Your task to perform on an android device: change notifications settings Image 0: 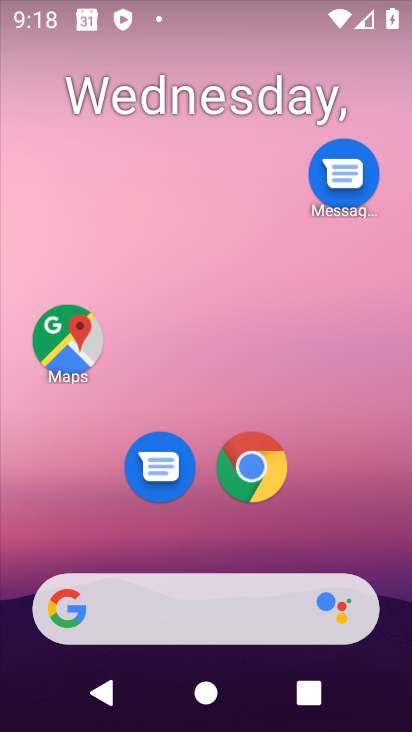
Step 0: drag from (334, 583) to (82, 6)
Your task to perform on an android device: change notifications settings Image 1: 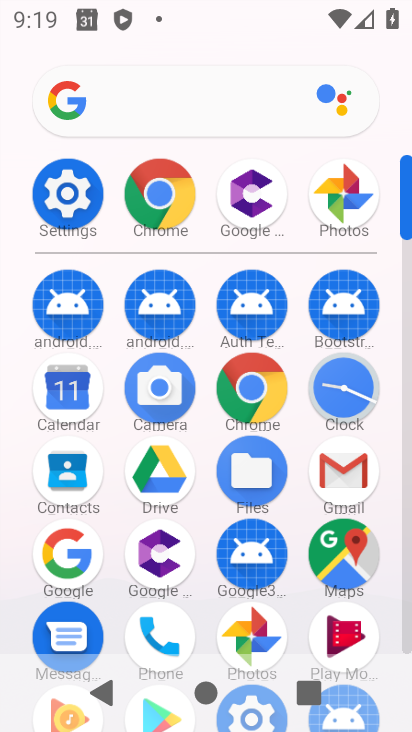
Step 1: click (53, 198)
Your task to perform on an android device: change notifications settings Image 2: 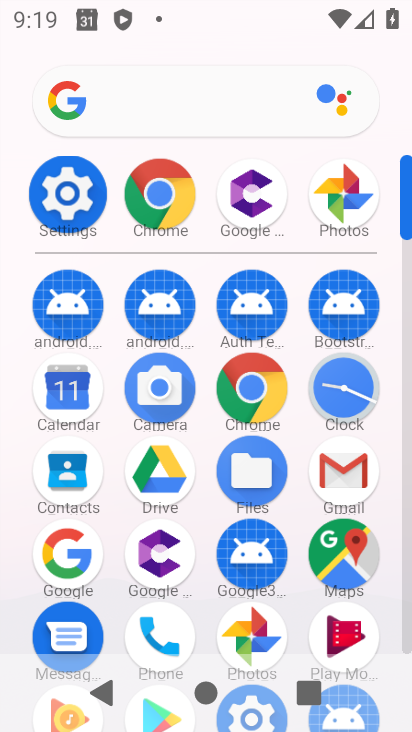
Step 2: click (60, 194)
Your task to perform on an android device: change notifications settings Image 3: 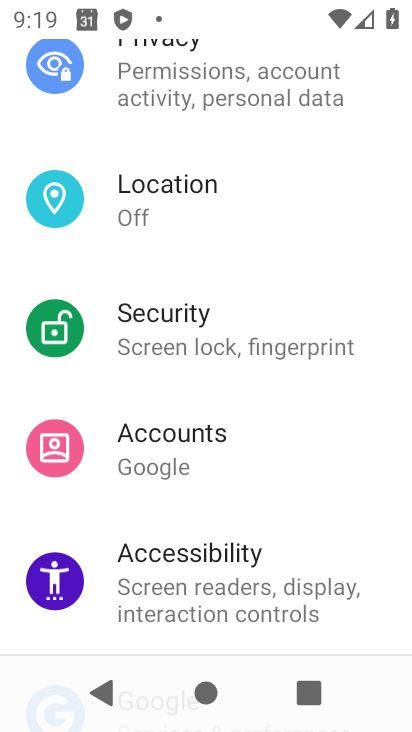
Step 3: click (63, 196)
Your task to perform on an android device: change notifications settings Image 4: 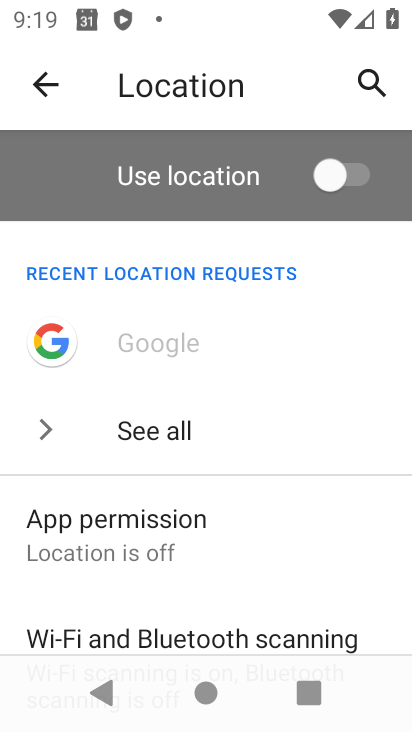
Step 4: click (43, 85)
Your task to perform on an android device: change notifications settings Image 5: 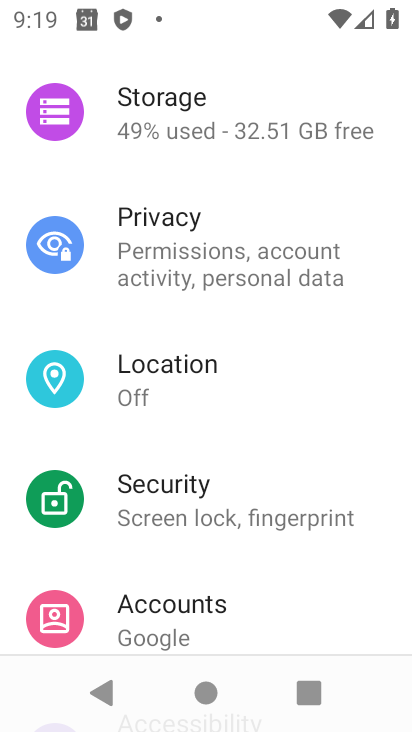
Step 5: drag from (134, 165) to (225, 449)
Your task to perform on an android device: change notifications settings Image 6: 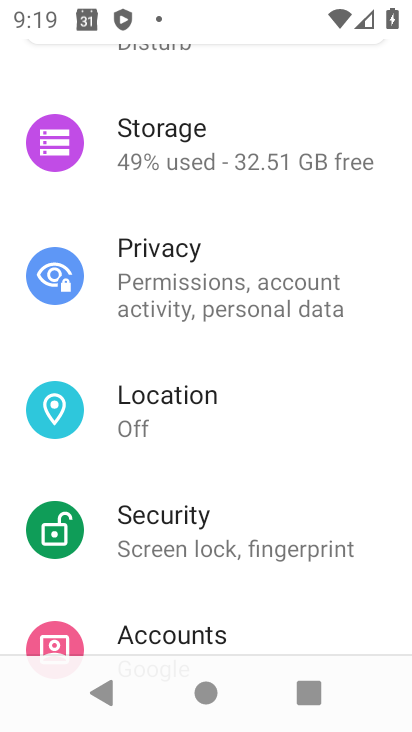
Step 6: click (253, 477)
Your task to perform on an android device: change notifications settings Image 7: 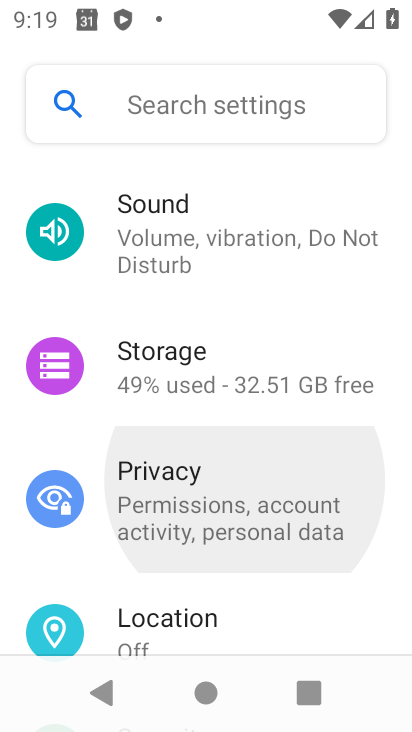
Step 7: click (238, 408)
Your task to perform on an android device: change notifications settings Image 8: 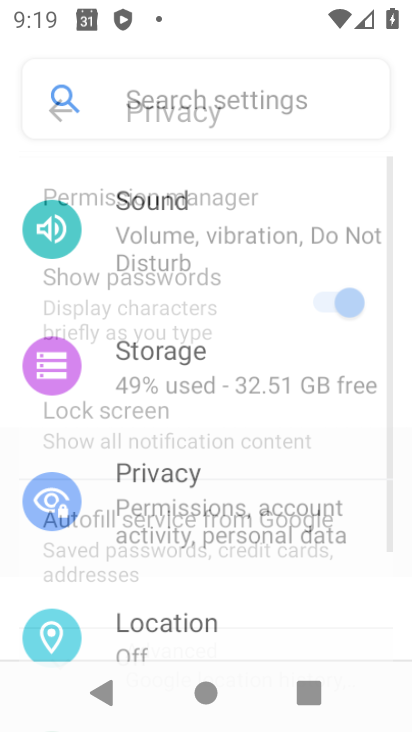
Step 8: drag from (180, 398) to (214, 518)
Your task to perform on an android device: change notifications settings Image 9: 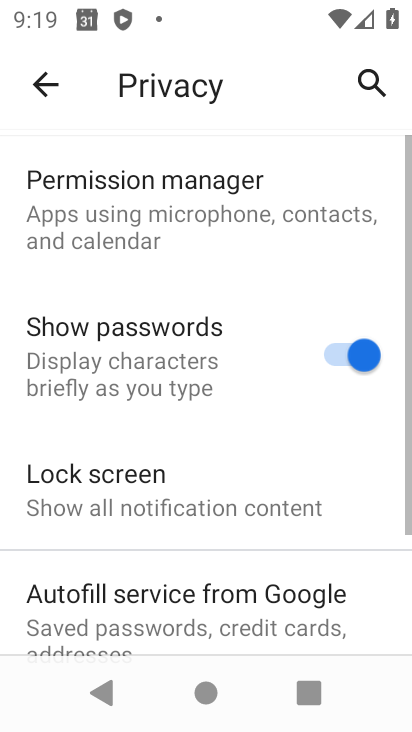
Step 9: click (39, 79)
Your task to perform on an android device: change notifications settings Image 10: 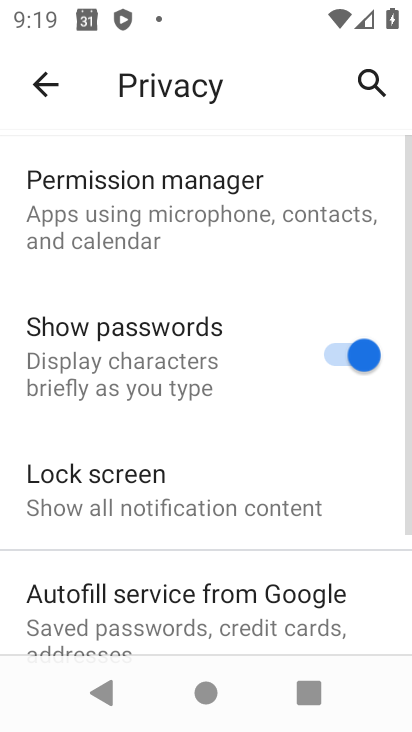
Step 10: click (38, 78)
Your task to perform on an android device: change notifications settings Image 11: 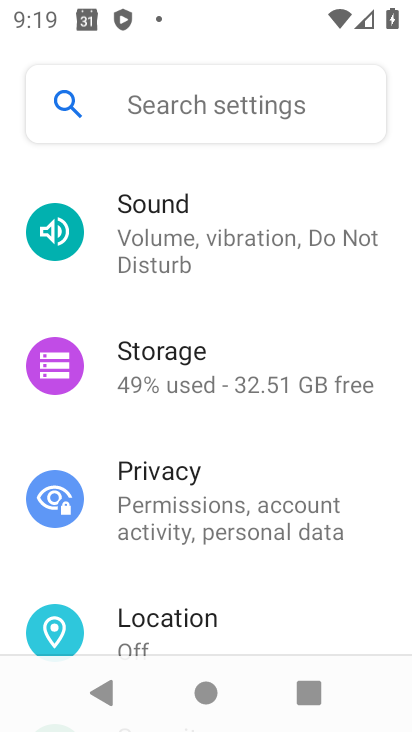
Step 11: drag from (159, 227) to (254, 516)
Your task to perform on an android device: change notifications settings Image 12: 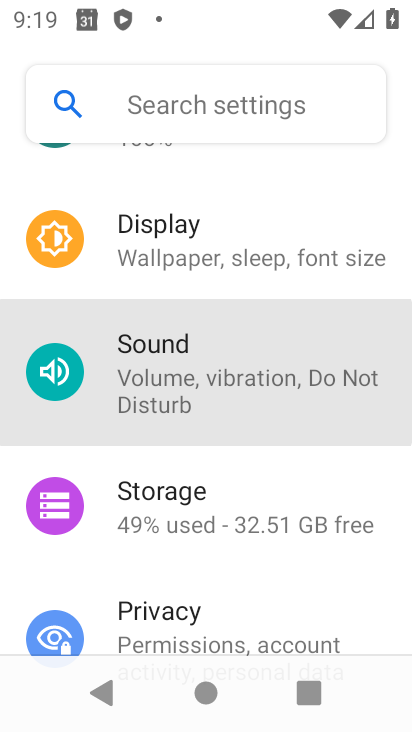
Step 12: drag from (251, 312) to (264, 547)
Your task to perform on an android device: change notifications settings Image 13: 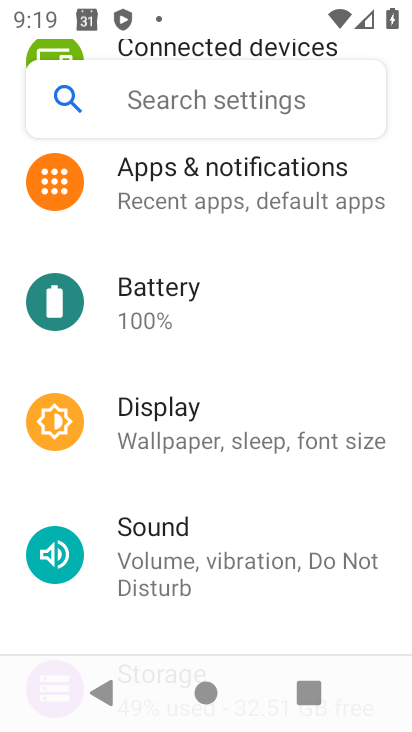
Step 13: drag from (196, 235) to (205, 562)
Your task to perform on an android device: change notifications settings Image 14: 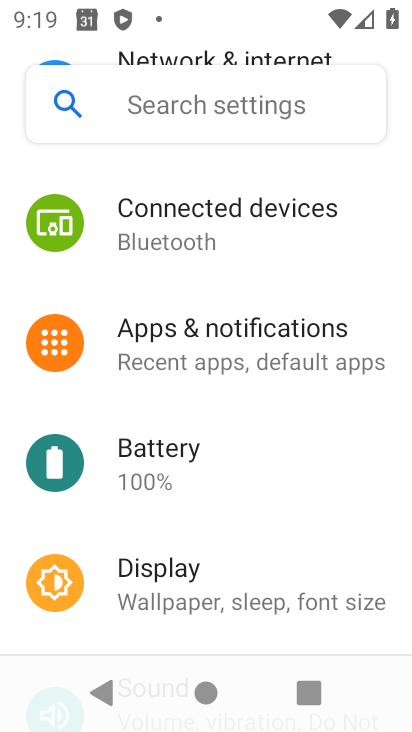
Step 14: click (210, 340)
Your task to perform on an android device: change notifications settings Image 15: 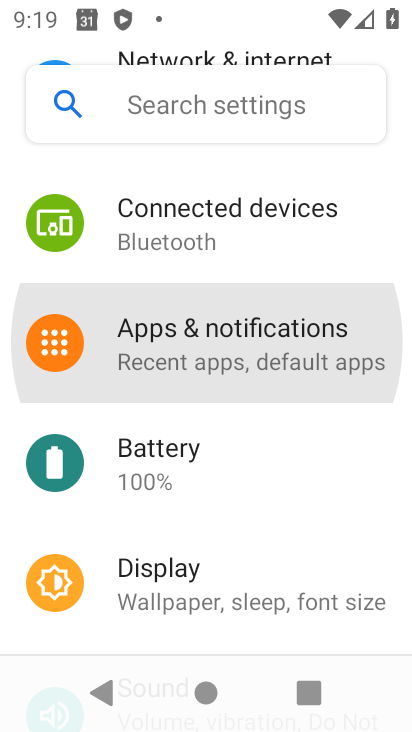
Step 15: click (210, 341)
Your task to perform on an android device: change notifications settings Image 16: 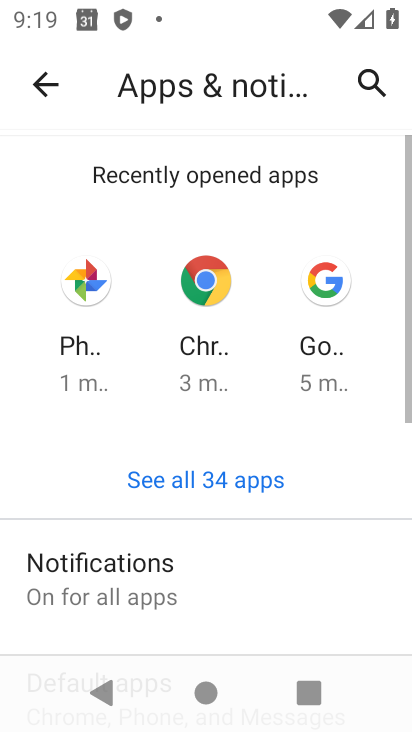
Step 16: click (103, 569)
Your task to perform on an android device: change notifications settings Image 17: 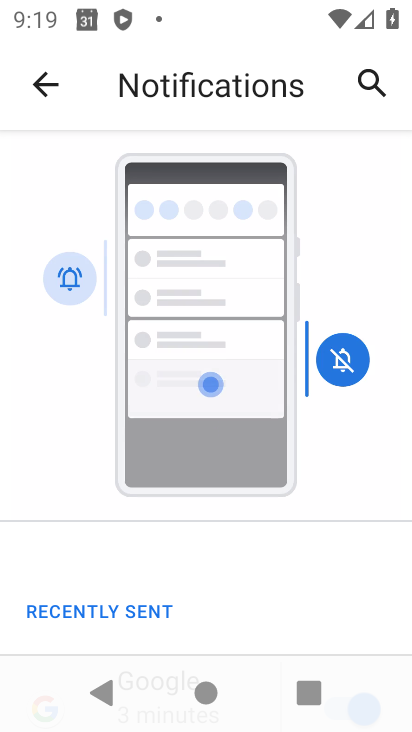
Step 17: drag from (221, 460) to (227, 4)
Your task to perform on an android device: change notifications settings Image 18: 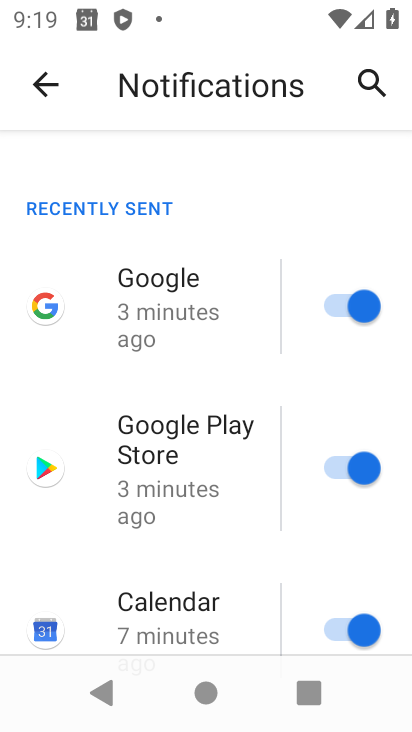
Step 18: drag from (203, 458) to (147, 73)
Your task to perform on an android device: change notifications settings Image 19: 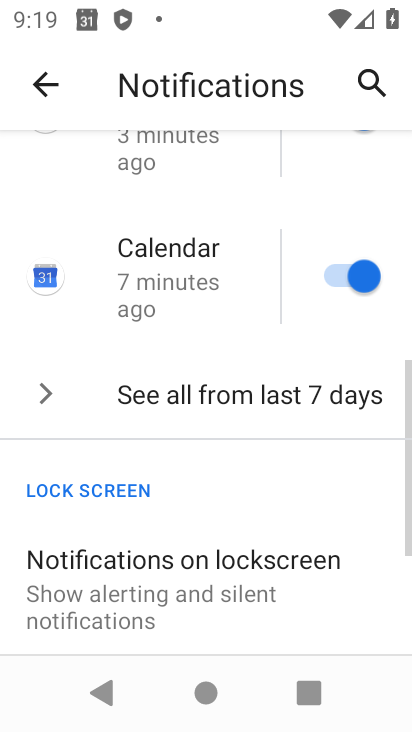
Step 19: drag from (216, 471) to (174, 126)
Your task to perform on an android device: change notifications settings Image 20: 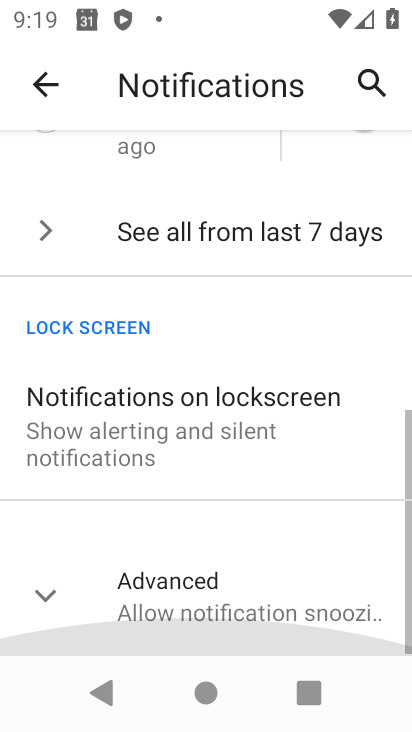
Step 20: drag from (221, 505) to (251, 134)
Your task to perform on an android device: change notifications settings Image 21: 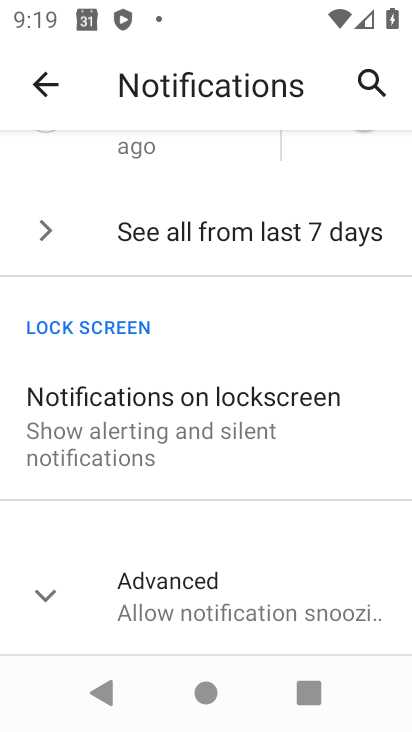
Step 21: drag from (177, 561) to (190, 103)
Your task to perform on an android device: change notifications settings Image 22: 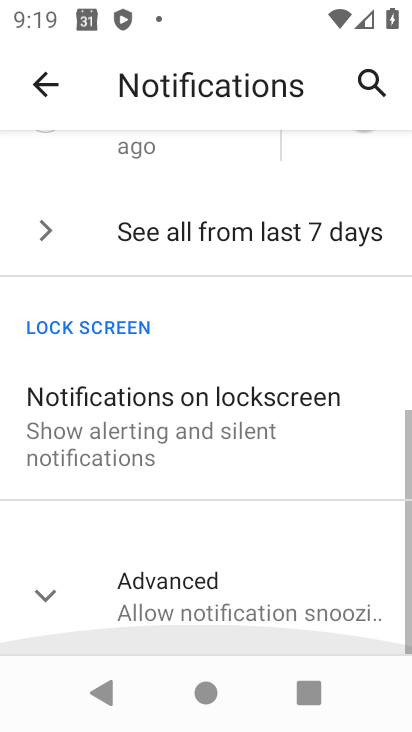
Step 22: drag from (248, 421) to (266, 4)
Your task to perform on an android device: change notifications settings Image 23: 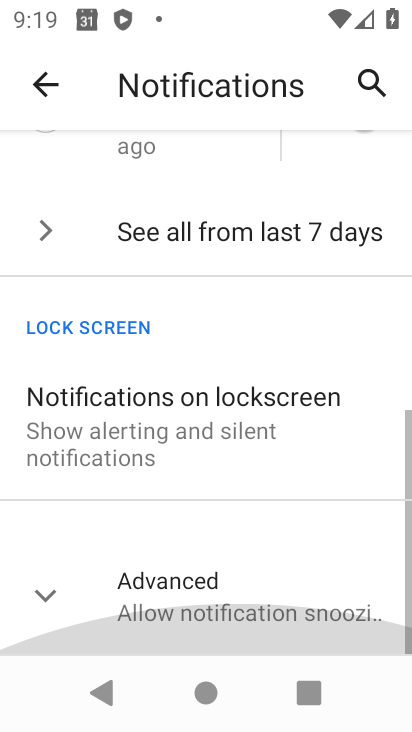
Step 23: drag from (196, 581) to (140, 204)
Your task to perform on an android device: change notifications settings Image 24: 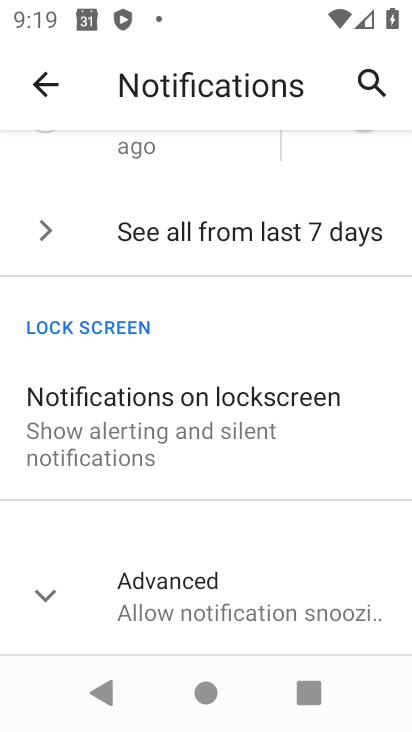
Step 24: click (169, 591)
Your task to perform on an android device: change notifications settings Image 25: 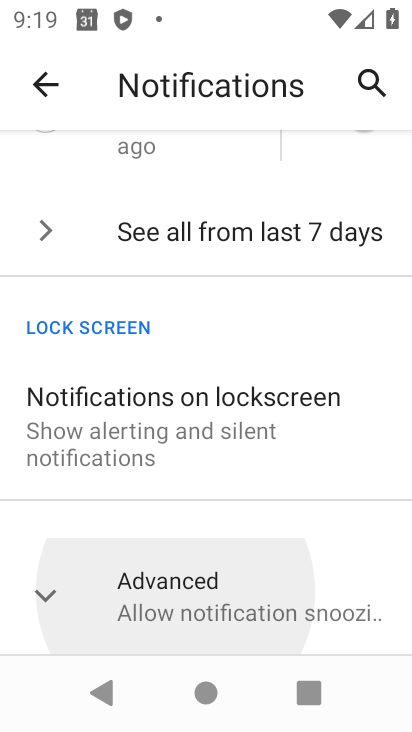
Step 25: click (170, 588)
Your task to perform on an android device: change notifications settings Image 26: 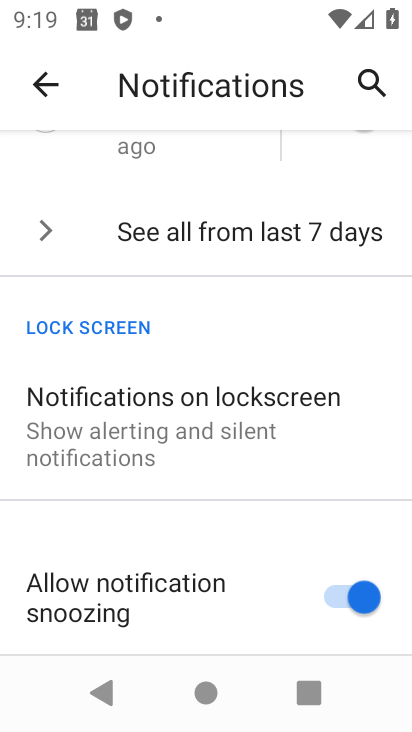
Step 26: drag from (197, 552) to (69, 3)
Your task to perform on an android device: change notifications settings Image 27: 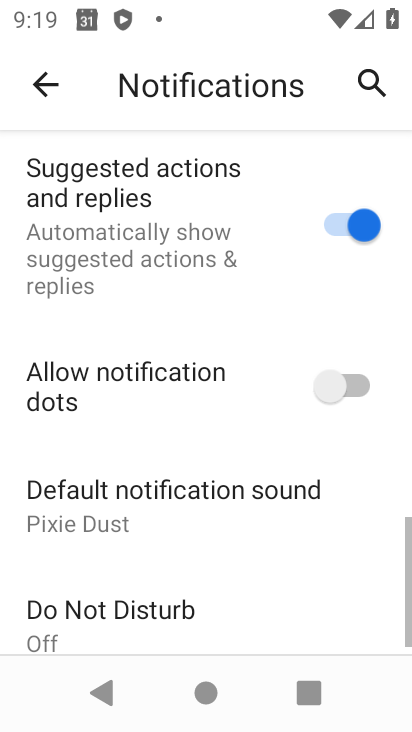
Step 27: drag from (129, 443) to (112, 80)
Your task to perform on an android device: change notifications settings Image 28: 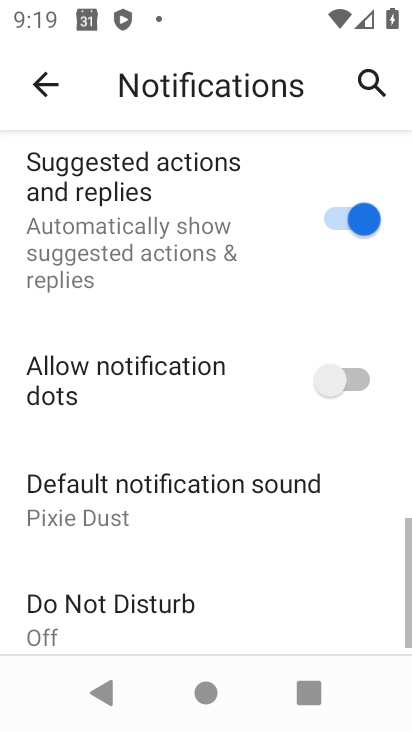
Step 28: drag from (247, 460) to (172, 69)
Your task to perform on an android device: change notifications settings Image 29: 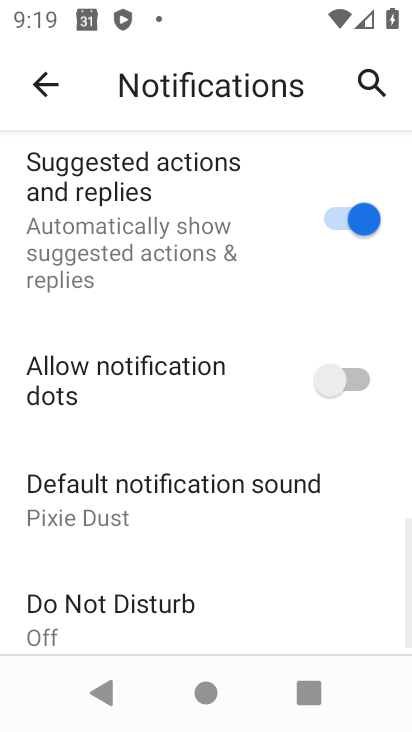
Step 29: drag from (207, 505) to (255, 65)
Your task to perform on an android device: change notifications settings Image 30: 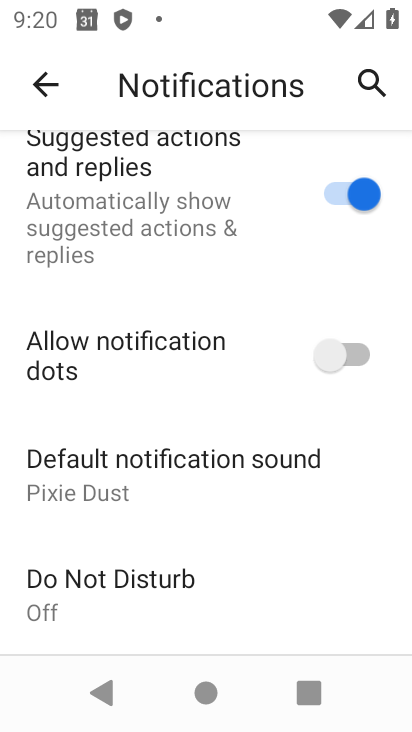
Step 30: click (332, 354)
Your task to perform on an android device: change notifications settings Image 31: 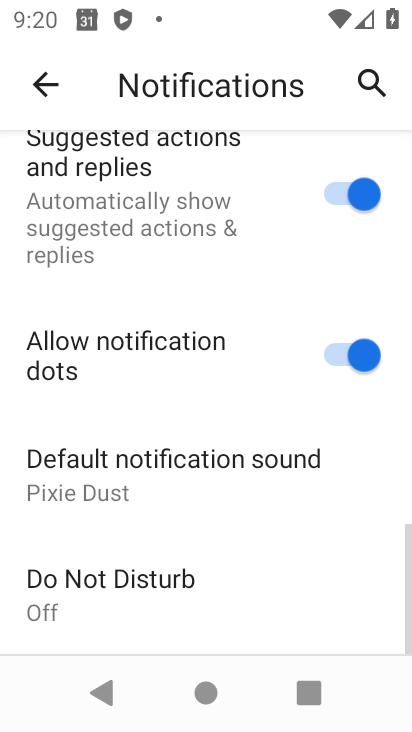
Step 31: drag from (235, 372) to (217, 80)
Your task to perform on an android device: change notifications settings Image 32: 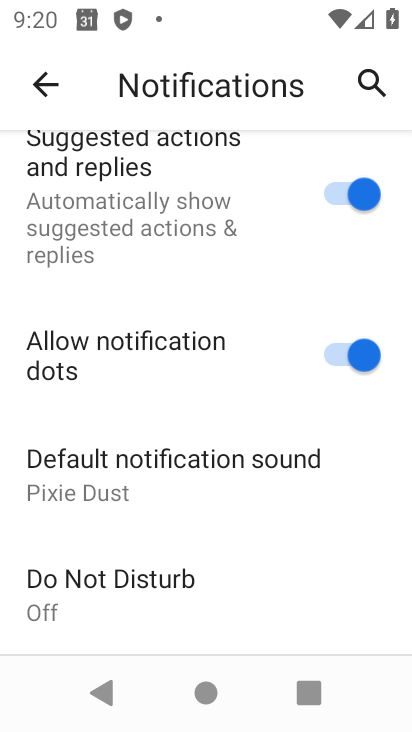
Step 32: drag from (219, 237) to (225, 577)
Your task to perform on an android device: change notifications settings Image 33: 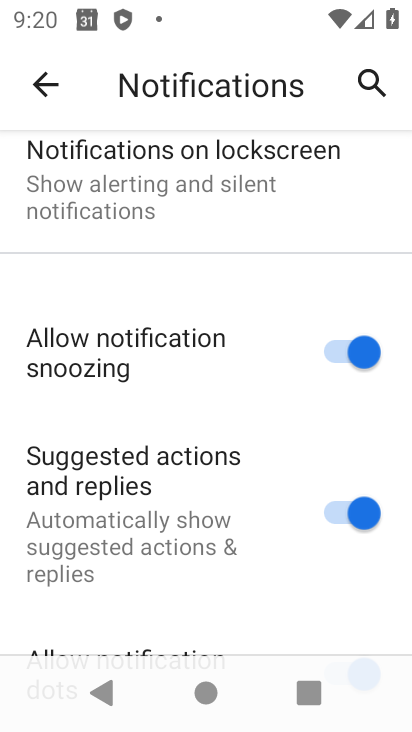
Step 33: click (347, 350)
Your task to perform on an android device: change notifications settings Image 34: 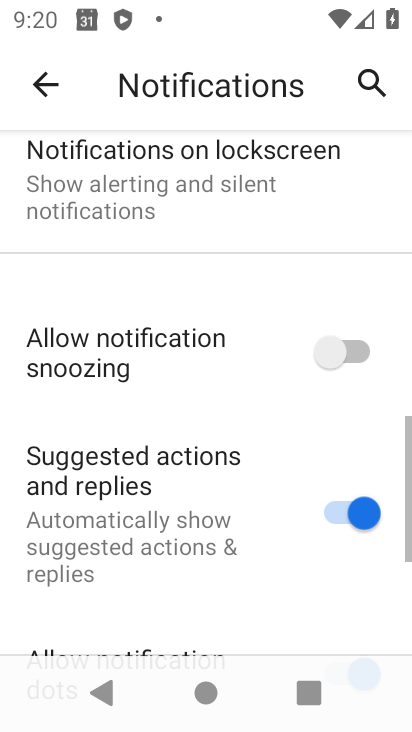
Step 34: task complete